Your task to perform on an android device: Open Reddit.com Image 0: 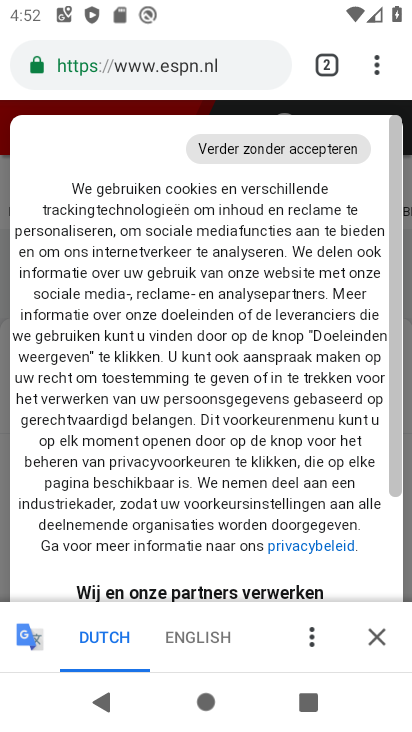
Step 0: click (210, 51)
Your task to perform on an android device: Open Reddit.com Image 1: 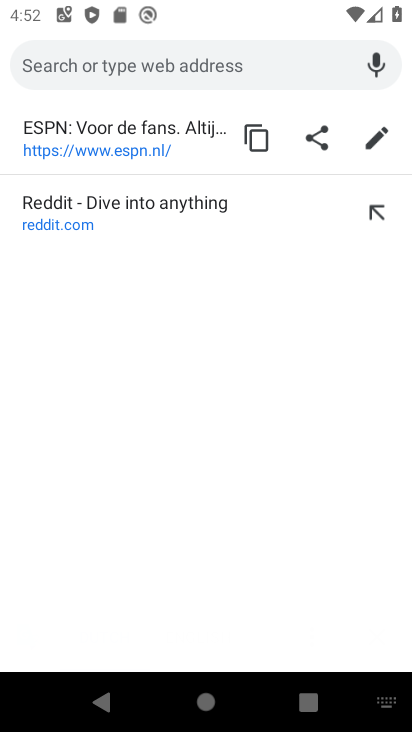
Step 1: click (188, 198)
Your task to perform on an android device: Open Reddit.com Image 2: 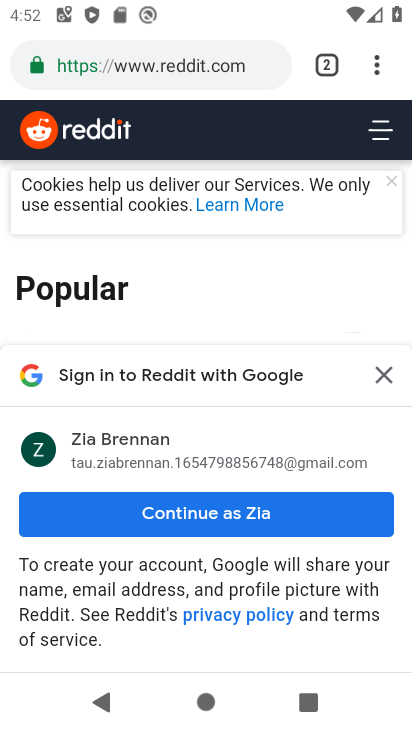
Step 2: task complete